Your task to perform on an android device: open chrome privacy settings Image 0: 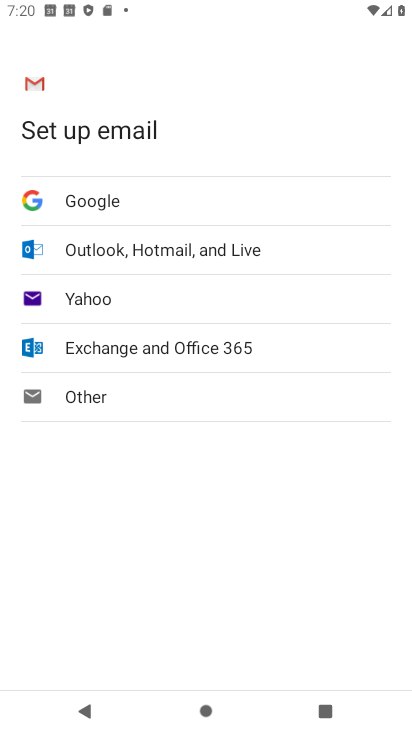
Step 0: press home button
Your task to perform on an android device: open chrome privacy settings Image 1: 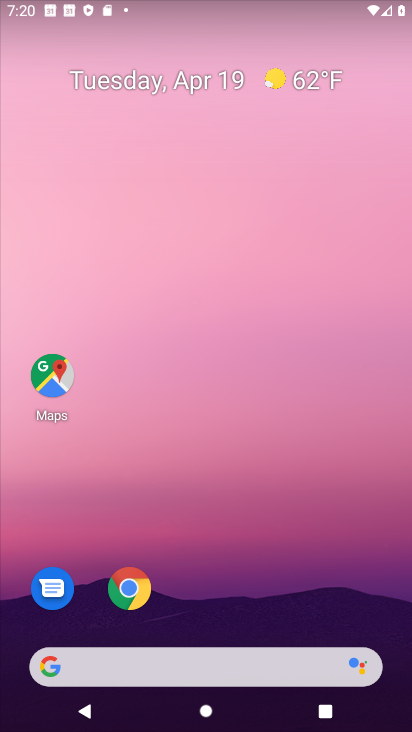
Step 1: click (131, 588)
Your task to perform on an android device: open chrome privacy settings Image 2: 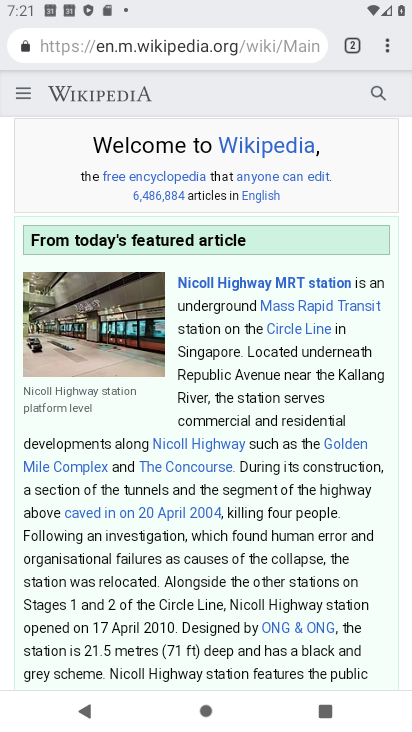
Step 2: click (386, 40)
Your task to perform on an android device: open chrome privacy settings Image 3: 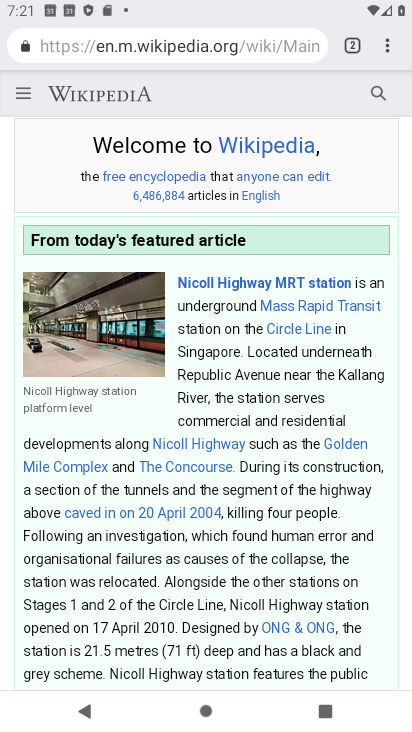
Step 3: click (385, 50)
Your task to perform on an android device: open chrome privacy settings Image 4: 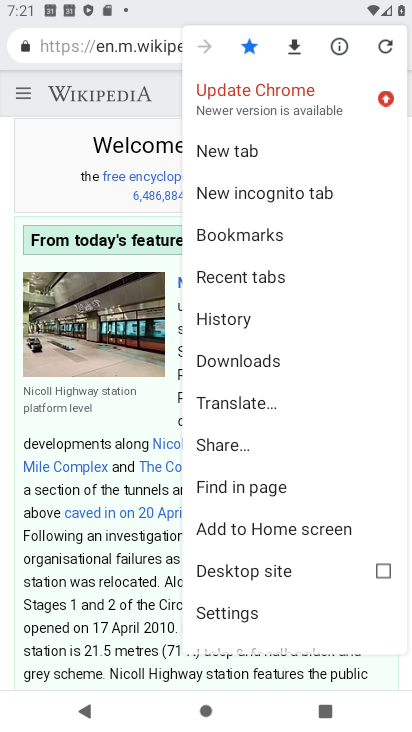
Step 4: click (232, 614)
Your task to perform on an android device: open chrome privacy settings Image 5: 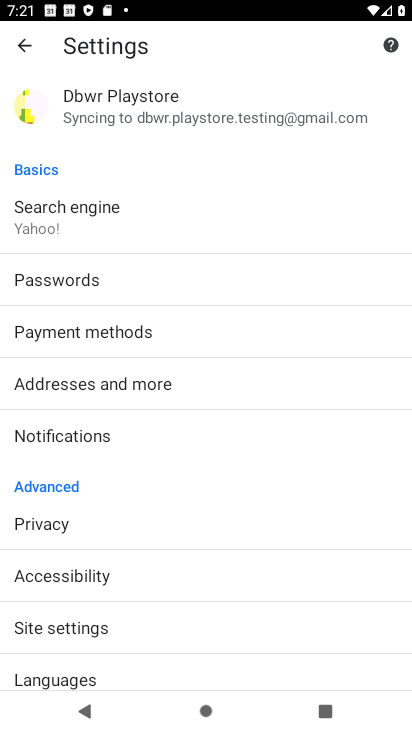
Step 5: click (59, 526)
Your task to perform on an android device: open chrome privacy settings Image 6: 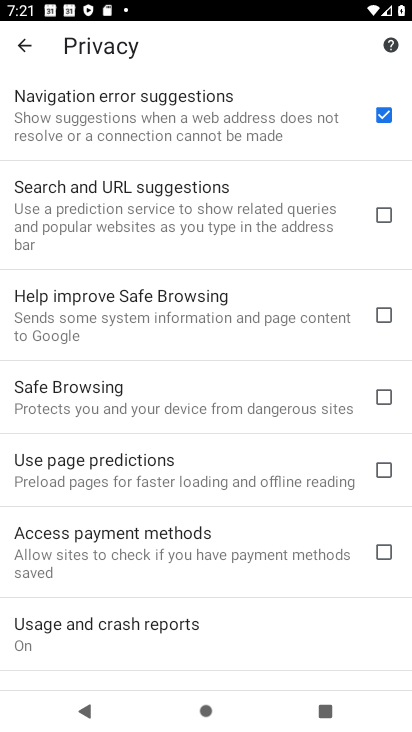
Step 6: task complete